Your task to perform on an android device: Open the Play Movies app and select the watchlist tab. Image 0: 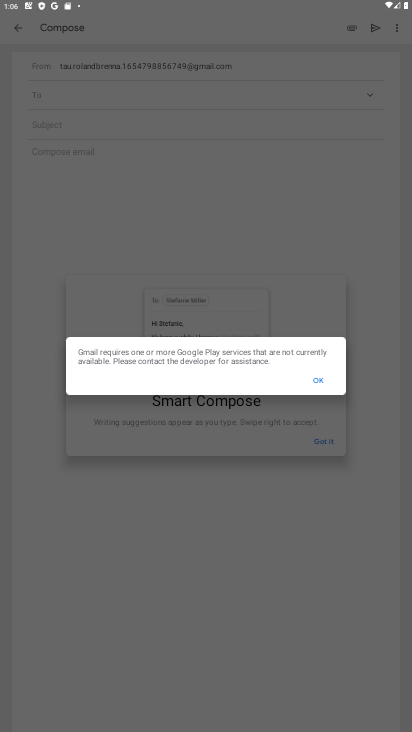
Step 0: press home button
Your task to perform on an android device: Open the Play Movies app and select the watchlist tab. Image 1: 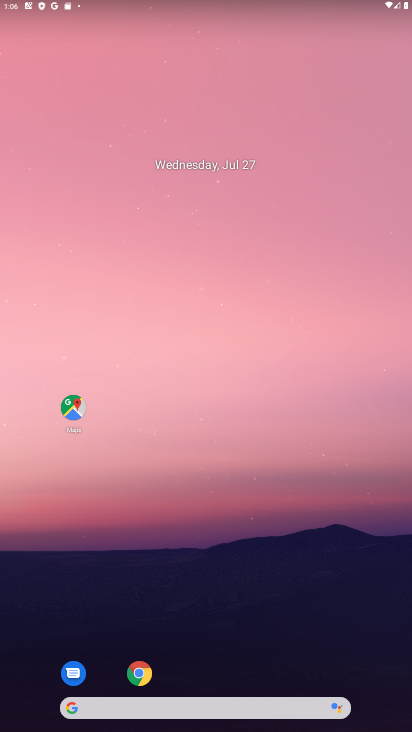
Step 1: drag from (196, 665) to (228, 25)
Your task to perform on an android device: Open the Play Movies app and select the watchlist tab. Image 2: 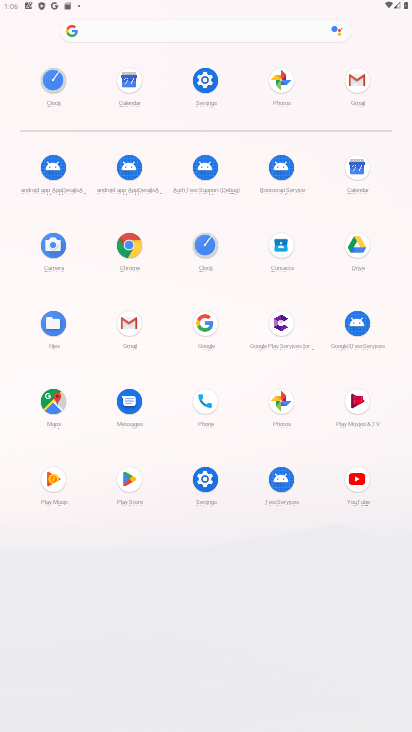
Step 2: click (356, 403)
Your task to perform on an android device: Open the Play Movies app and select the watchlist tab. Image 3: 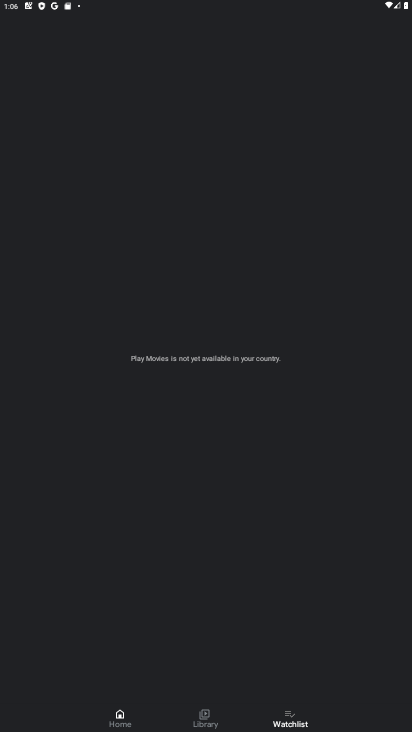
Step 3: click (292, 723)
Your task to perform on an android device: Open the Play Movies app and select the watchlist tab. Image 4: 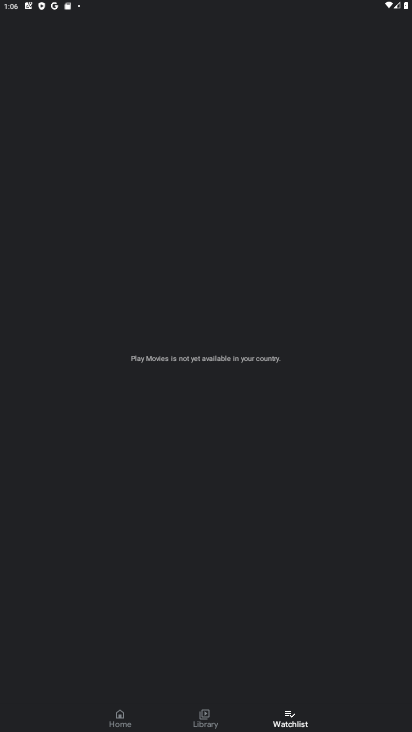
Step 4: task complete